Your task to perform on an android device: Set the phone to "Do not disturb". Image 0: 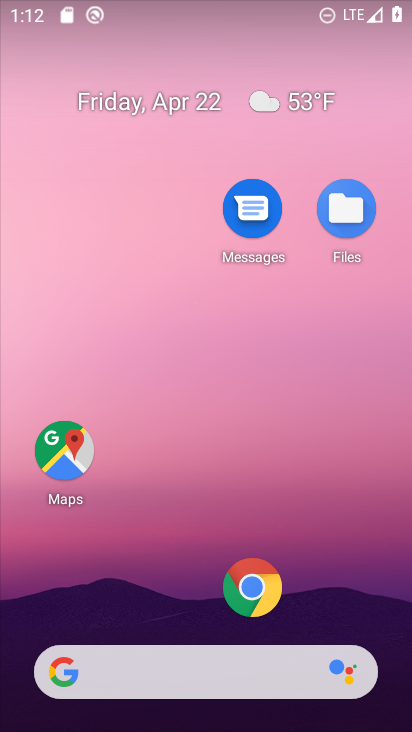
Step 0: drag from (131, 626) to (118, 299)
Your task to perform on an android device: Set the phone to "Do not disturb". Image 1: 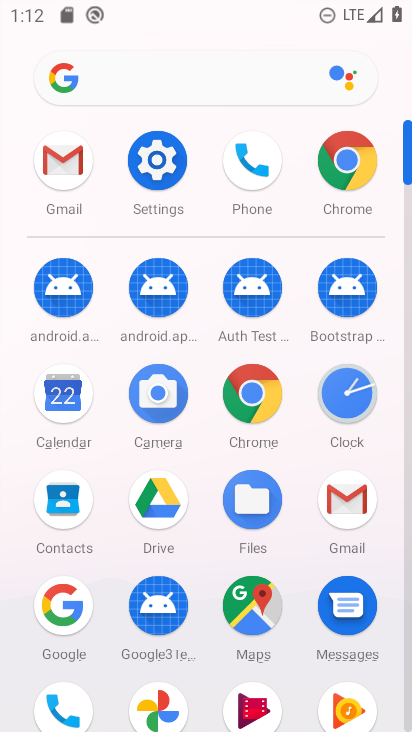
Step 1: task complete